Your task to perform on an android device: turn on javascript in the chrome app Image 0: 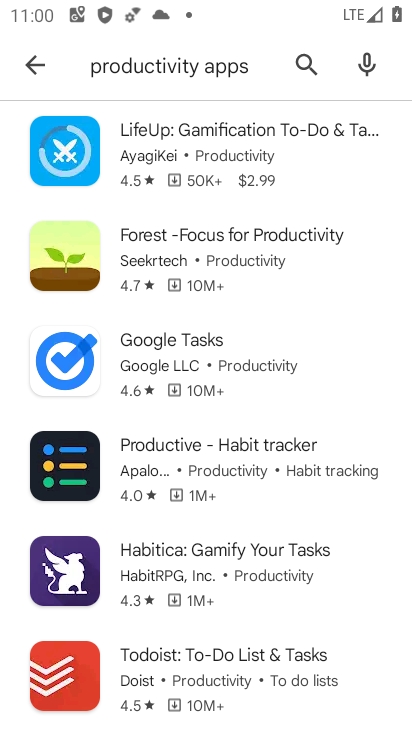
Step 0: press home button
Your task to perform on an android device: turn on javascript in the chrome app Image 1: 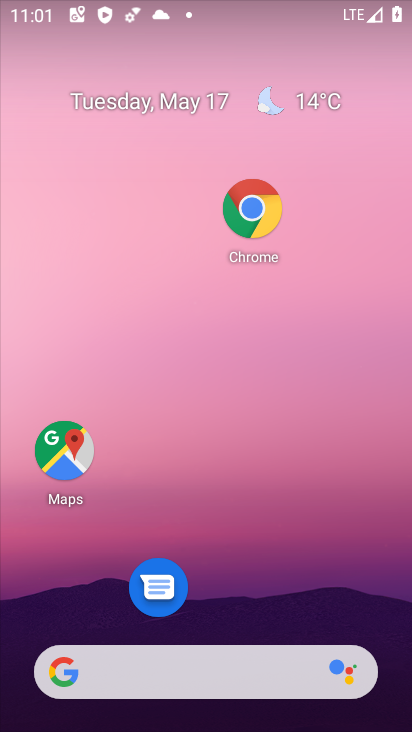
Step 1: click (254, 224)
Your task to perform on an android device: turn on javascript in the chrome app Image 2: 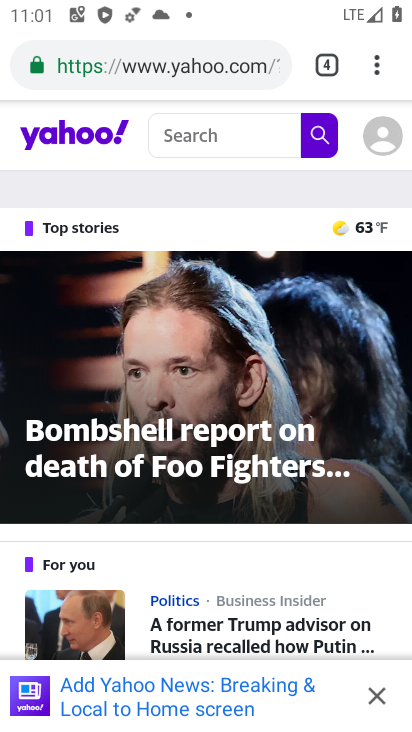
Step 2: click (375, 59)
Your task to perform on an android device: turn on javascript in the chrome app Image 3: 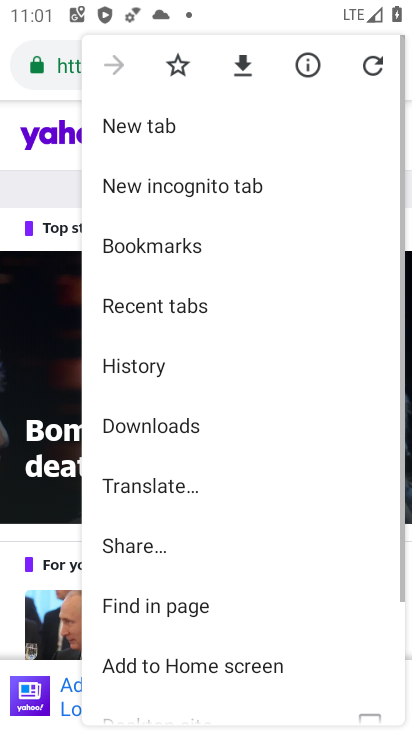
Step 3: drag from (237, 654) to (267, 284)
Your task to perform on an android device: turn on javascript in the chrome app Image 4: 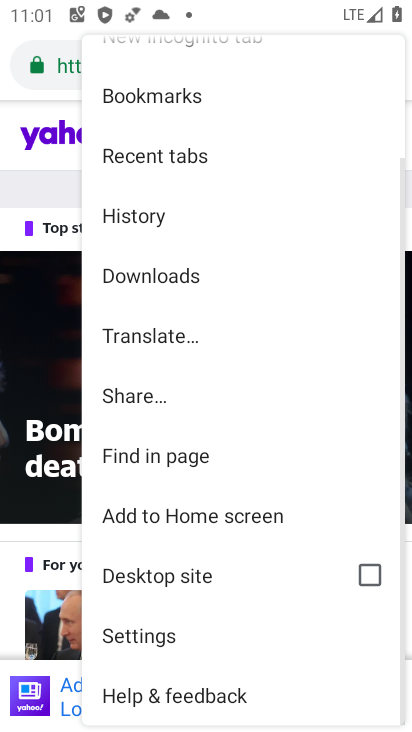
Step 4: click (167, 633)
Your task to perform on an android device: turn on javascript in the chrome app Image 5: 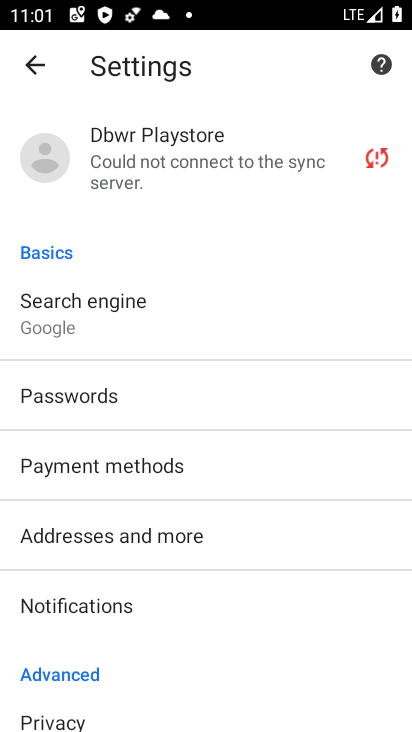
Step 5: drag from (189, 639) to (220, 222)
Your task to perform on an android device: turn on javascript in the chrome app Image 6: 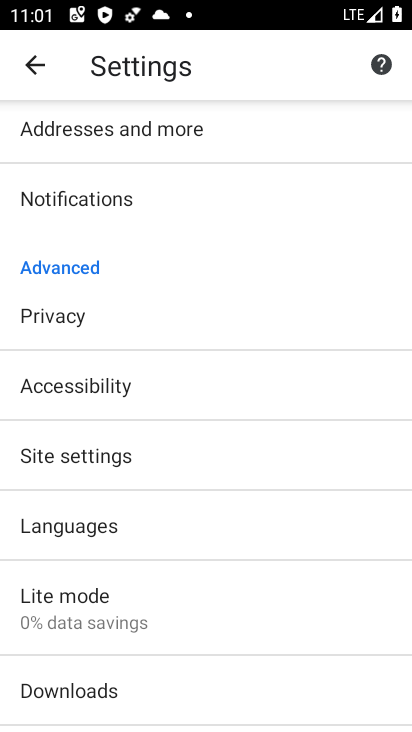
Step 6: click (121, 452)
Your task to perform on an android device: turn on javascript in the chrome app Image 7: 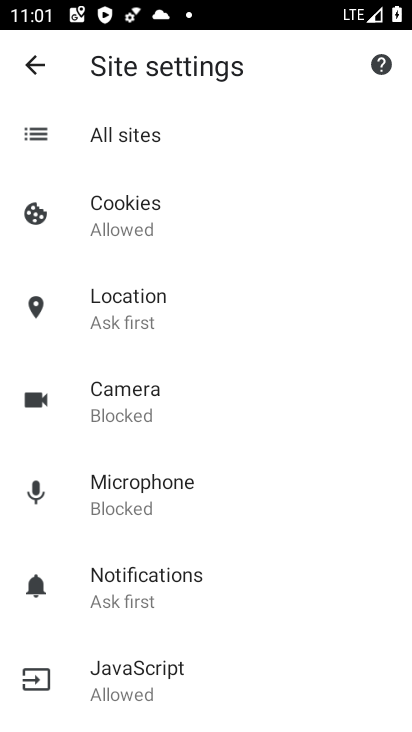
Step 7: click (162, 666)
Your task to perform on an android device: turn on javascript in the chrome app Image 8: 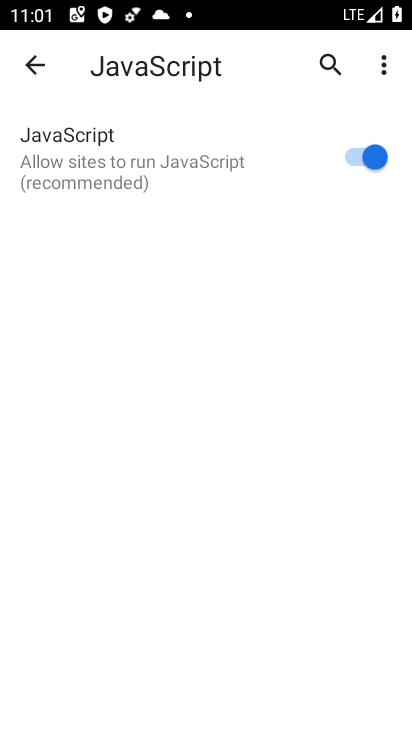
Step 8: task complete